Your task to perform on an android device: check battery use Image 0: 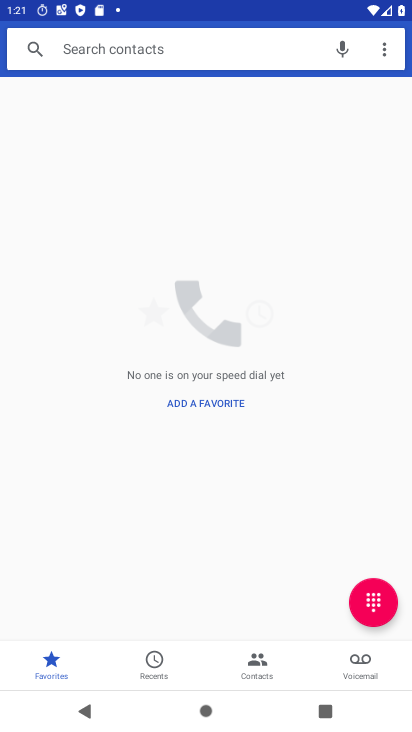
Step 0: press home button
Your task to perform on an android device: check battery use Image 1: 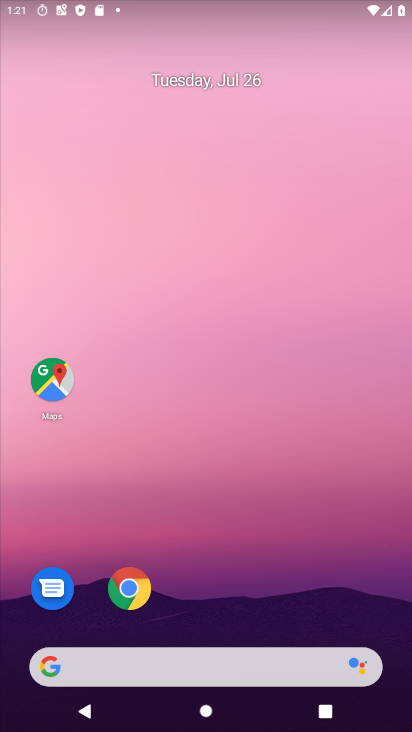
Step 1: drag from (369, 559) to (267, 193)
Your task to perform on an android device: check battery use Image 2: 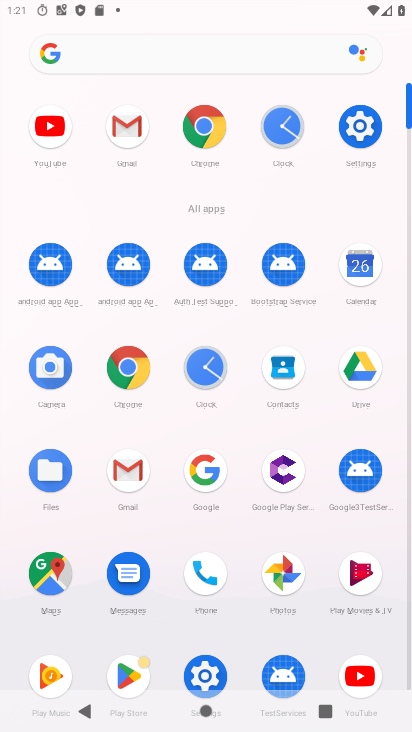
Step 2: click (211, 677)
Your task to perform on an android device: check battery use Image 3: 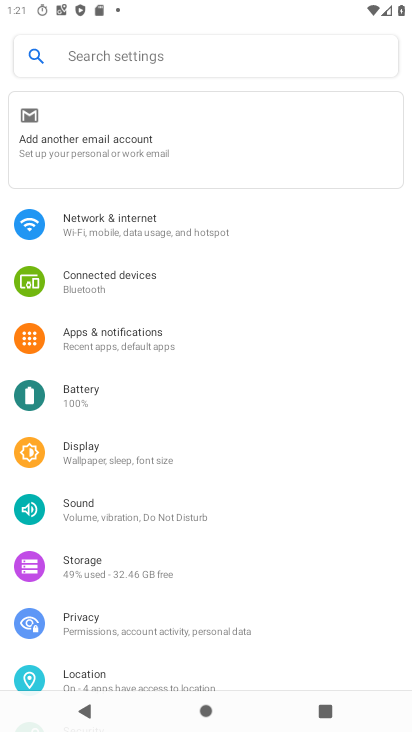
Step 3: click (180, 402)
Your task to perform on an android device: check battery use Image 4: 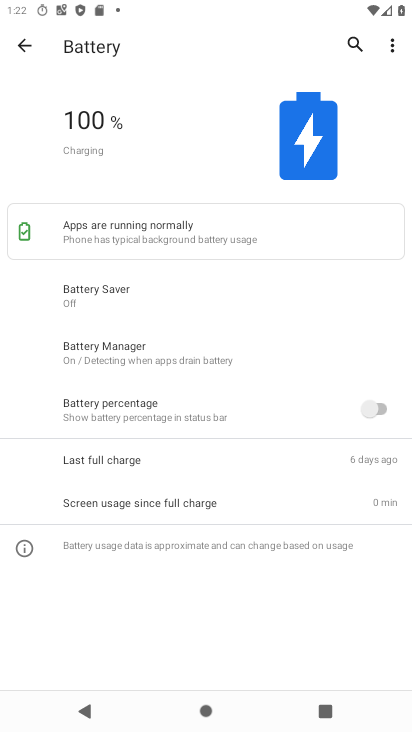
Step 4: click (405, 39)
Your task to perform on an android device: check battery use Image 5: 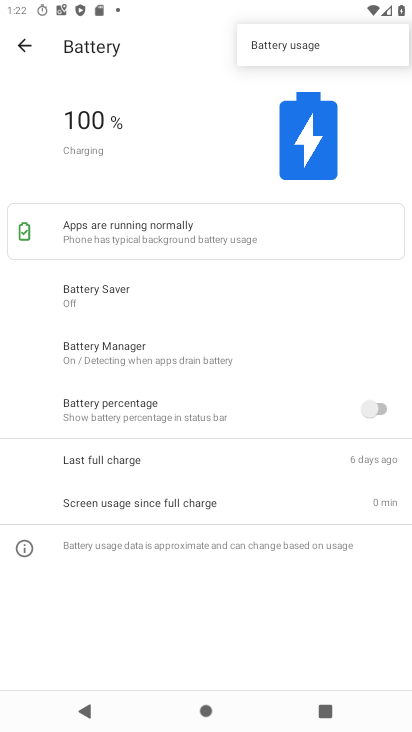
Step 5: click (309, 43)
Your task to perform on an android device: check battery use Image 6: 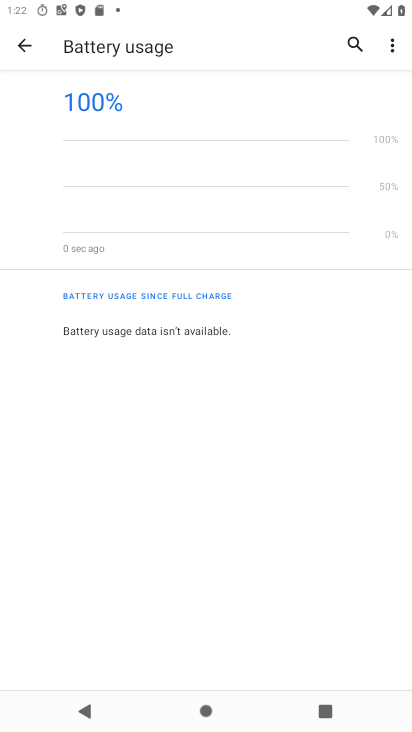
Step 6: click (389, 33)
Your task to perform on an android device: check battery use Image 7: 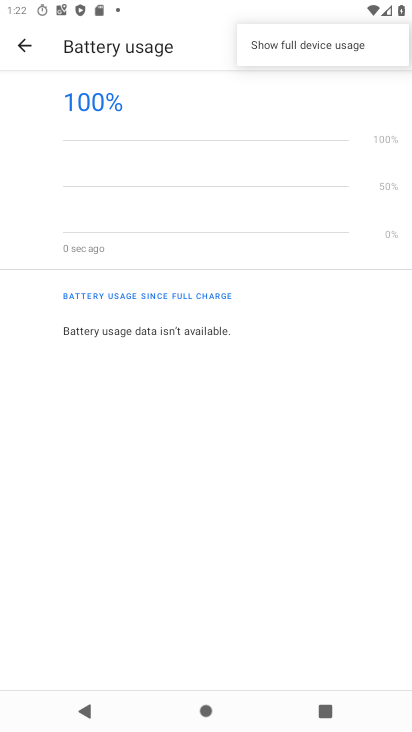
Step 7: task complete